Your task to perform on an android device: Open the calendar and show me this week's events? Image 0: 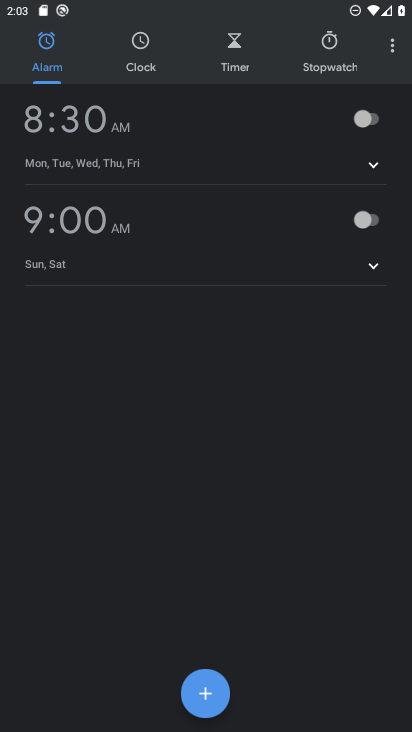
Step 0: press home button
Your task to perform on an android device: Open the calendar and show me this week's events? Image 1: 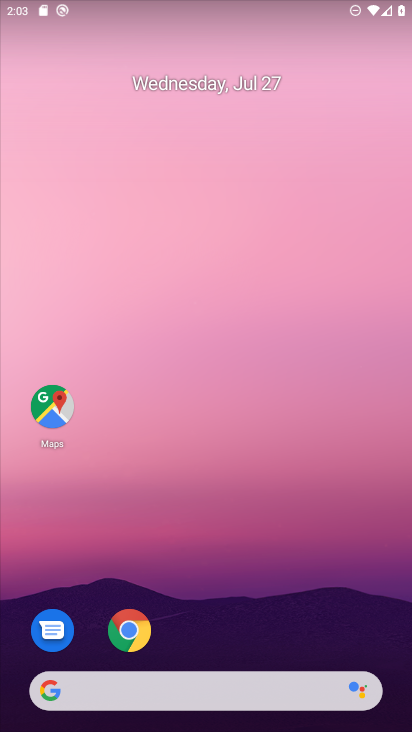
Step 1: drag from (389, 646) to (334, 123)
Your task to perform on an android device: Open the calendar and show me this week's events? Image 2: 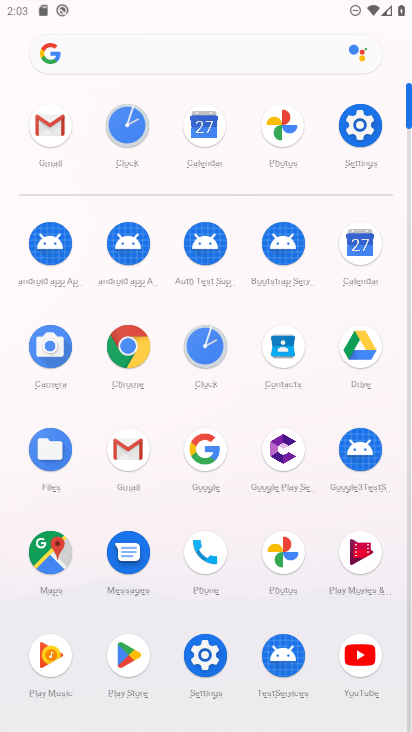
Step 2: click (360, 249)
Your task to perform on an android device: Open the calendar and show me this week's events? Image 3: 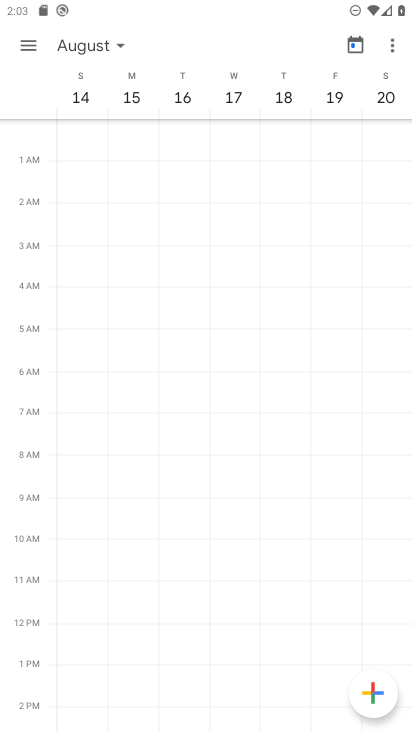
Step 3: click (125, 39)
Your task to perform on an android device: Open the calendar and show me this week's events? Image 4: 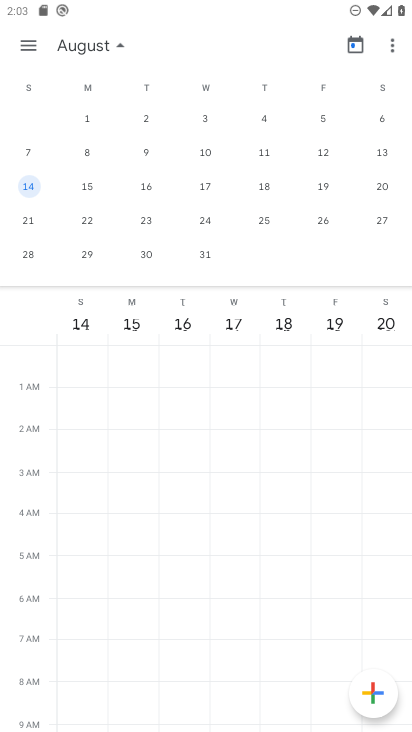
Step 4: drag from (32, 223) to (383, 221)
Your task to perform on an android device: Open the calendar and show me this week's events? Image 5: 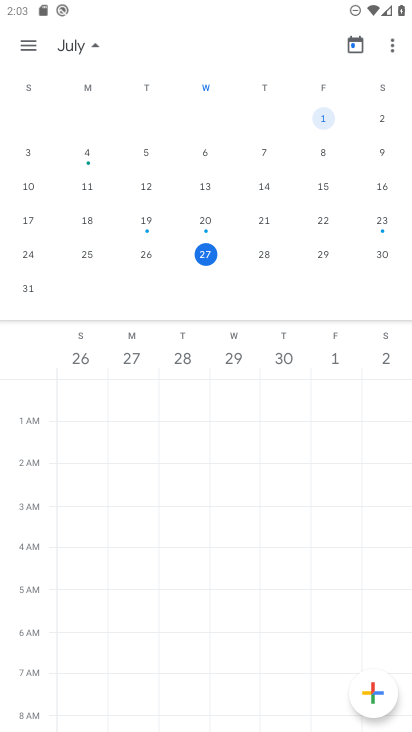
Step 5: click (202, 252)
Your task to perform on an android device: Open the calendar and show me this week's events? Image 6: 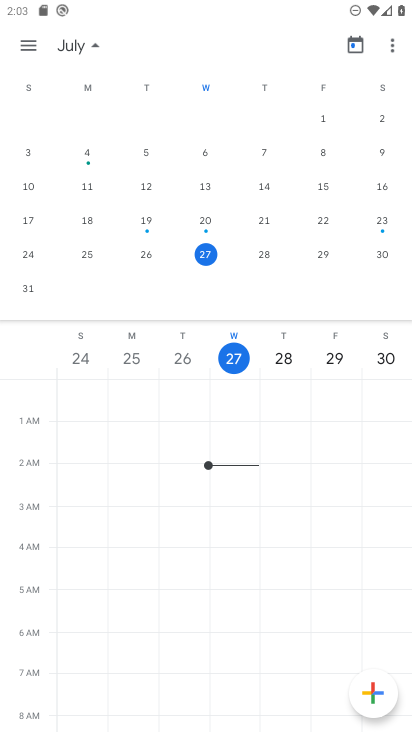
Step 6: task complete